Your task to perform on an android device: add a contact in the contacts app Image 0: 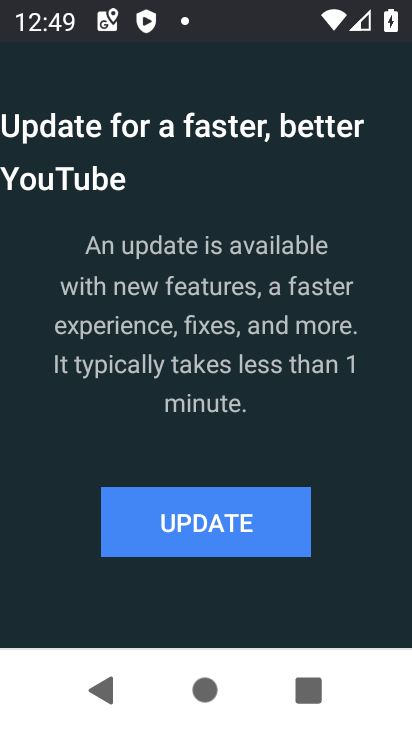
Step 0: press home button
Your task to perform on an android device: add a contact in the contacts app Image 1: 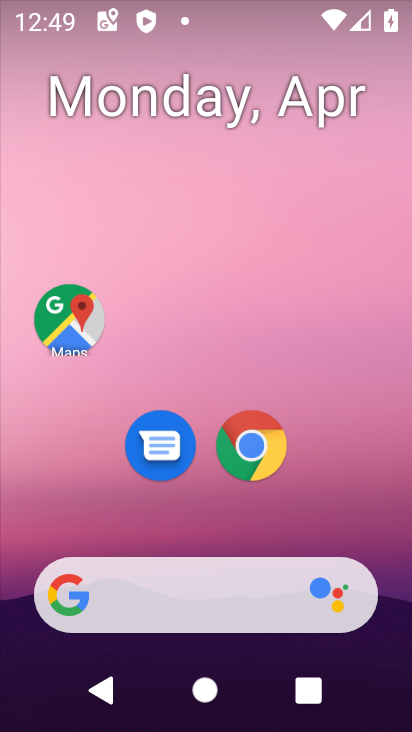
Step 1: drag from (363, 515) to (367, 58)
Your task to perform on an android device: add a contact in the contacts app Image 2: 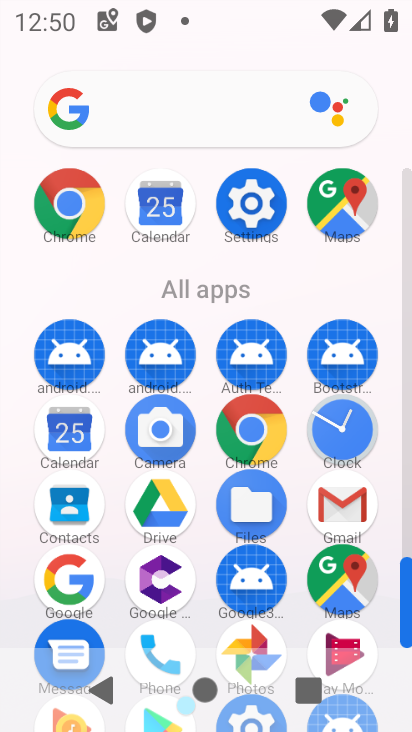
Step 2: click (85, 506)
Your task to perform on an android device: add a contact in the contacts app Image 3: 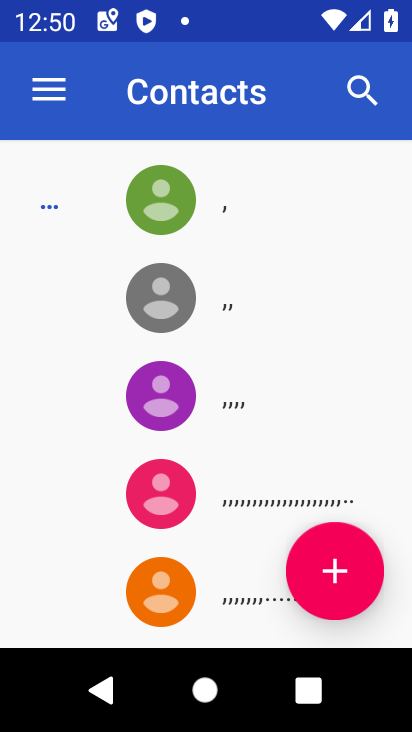
Step 3: click (335, 555)
Your task to perform on an android device: add a contact in the contacts app Image 4: 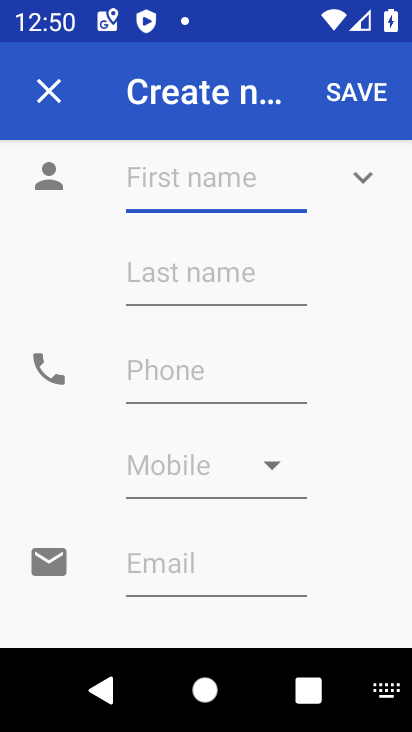
Step 4: type "london"
Your task to perform on an android device: add a contact in the contacts app Image 5: 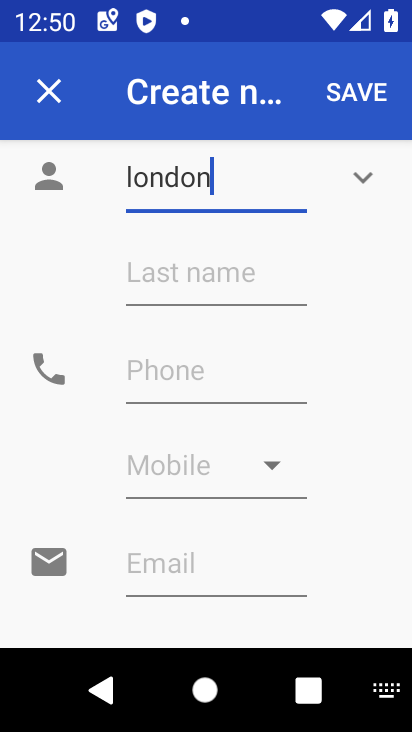
Step 5: click (239, 395)
Your task to perform on an android device: add a contact in the contacts app Image 6: 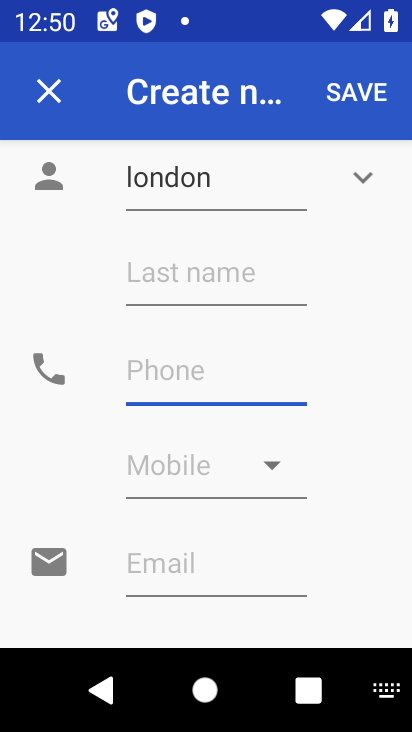
Step 6: type "123456789"
Your task to perform on an android device: add a contact in the contacts app Image 7: 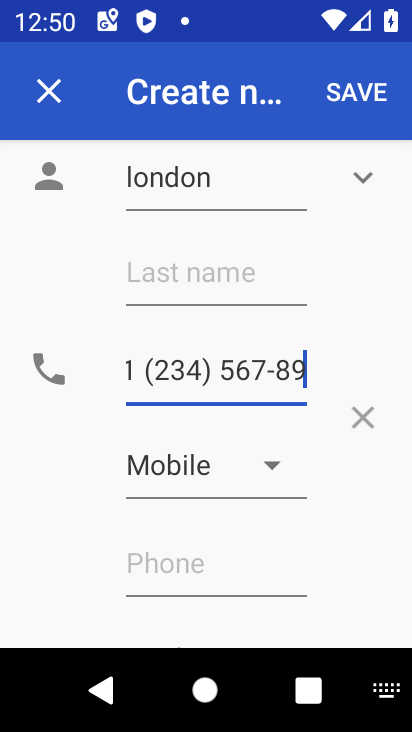
Step 7: click (347, 95)
Your task to perform on an android device: add a contact in the contacts app Image 8: 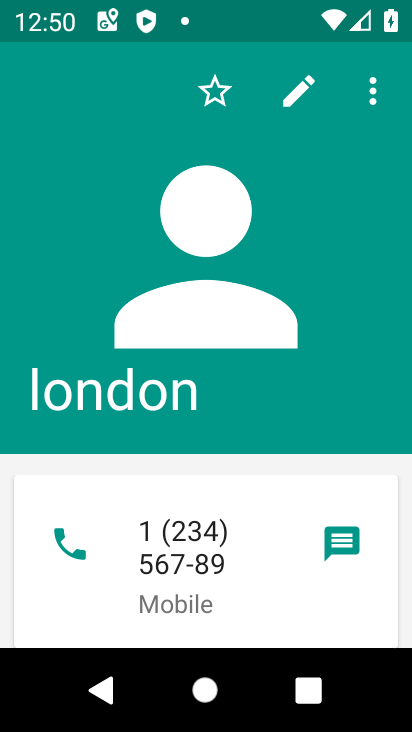
Step 8: task complete